Your task to perform on an android device: When is my next appointment? Image 0: 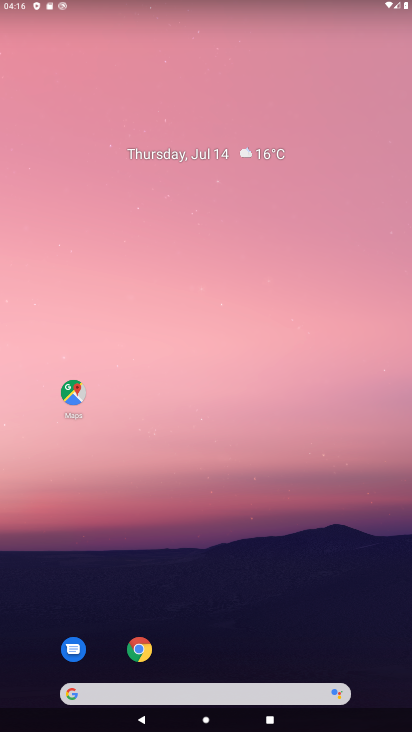
Step 0: drag from (265, 637) to (232, 21)
Your task to perform on an android device: When is my next appointment? Image 1: 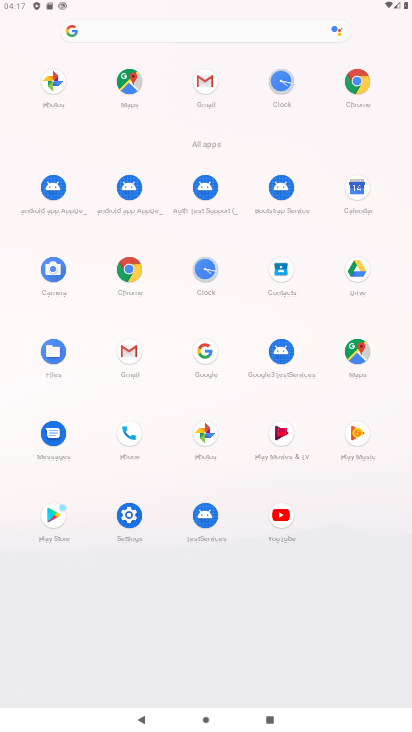
Step 1: click (361, 187)
Your task to perform on an android device: When is my next appointment? Image 2: 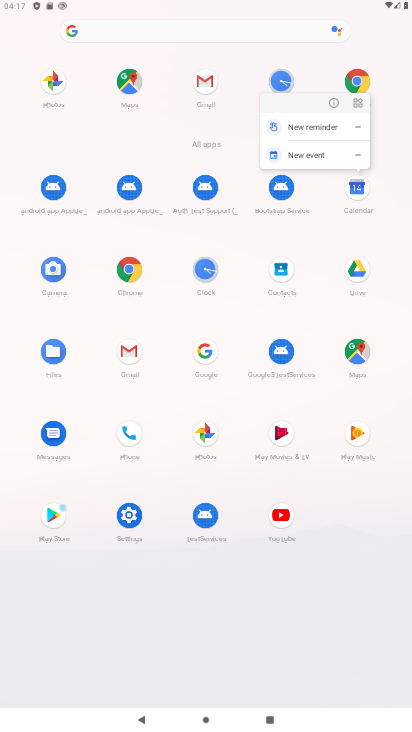
Step 2: click (361, 191)
Your task to perform on an android device: When is my next appointment? Image 3: 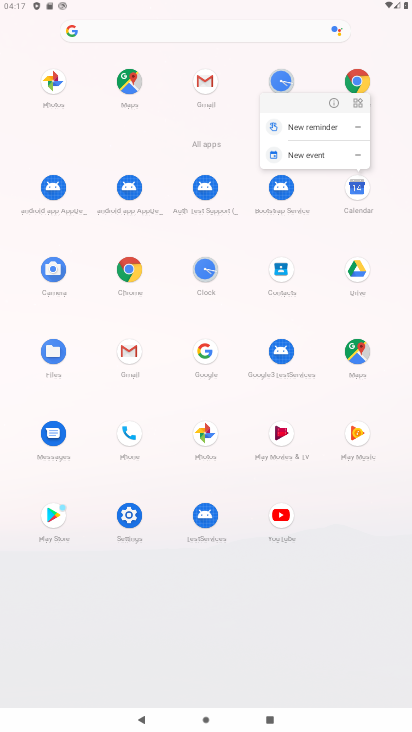
Step 3: click (361, 188)
Your task to perform on an android device: When is my next appointment? Image 4: 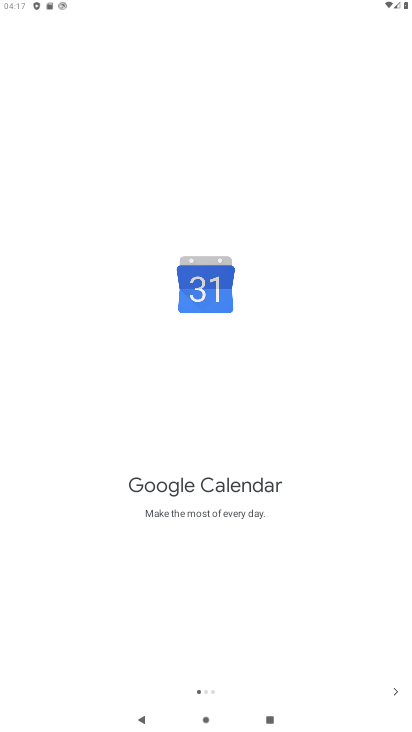
Step 4: click (393, 689)
Your task to perform on an android device: When is my next appointment? Image 5: 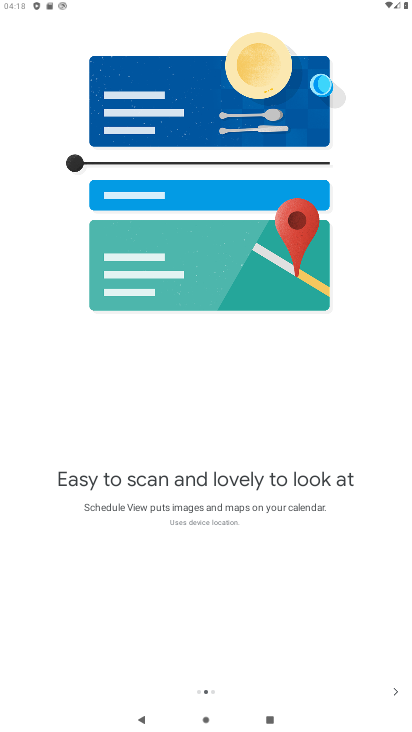
Step 5: click (387, 680)
Your task to perform on an android device: When is my next appointment? Image 6: 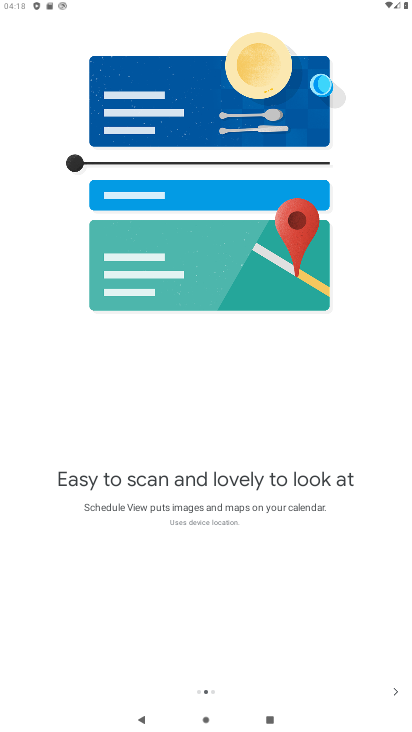
Step 6: click (386, 688)
Your task to perform on an android device: When is my next appointment? Image 7: 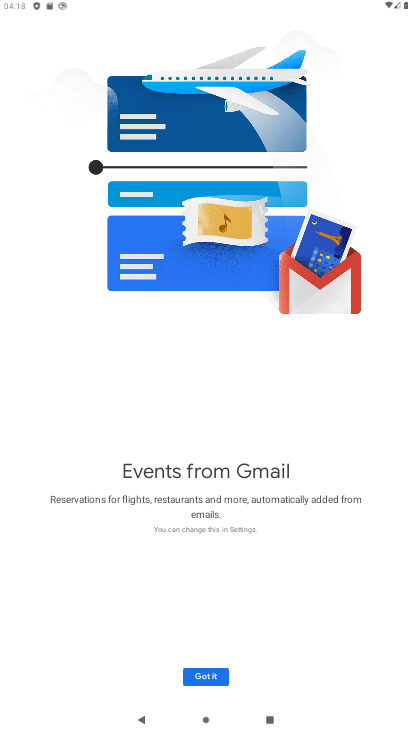
Step 7: click (221, 673)
Your task to perform on an android device: When is my next appointment? Image 8: 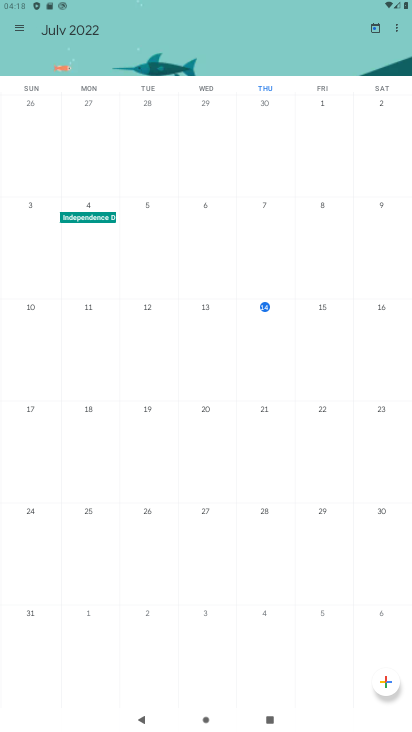
Step 8: task complete